Your task to perform on an android device: all mails in gmail Image 0: 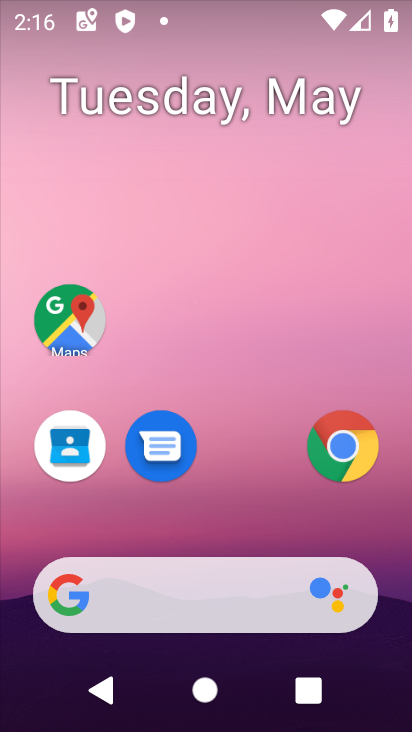
Step 0: drag from (222, 533) to (222, 4)
Your task to perform on an android device: all mails in gmail Image 1: 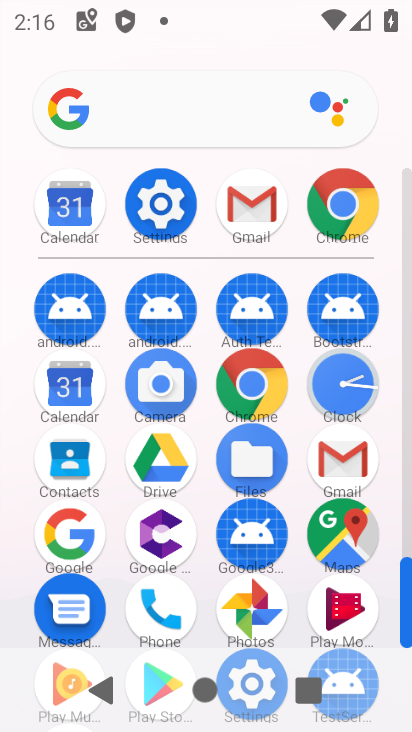
Step 1: click (342, 449)
Your task to perform on an android device: all mails in gmail Image 2: 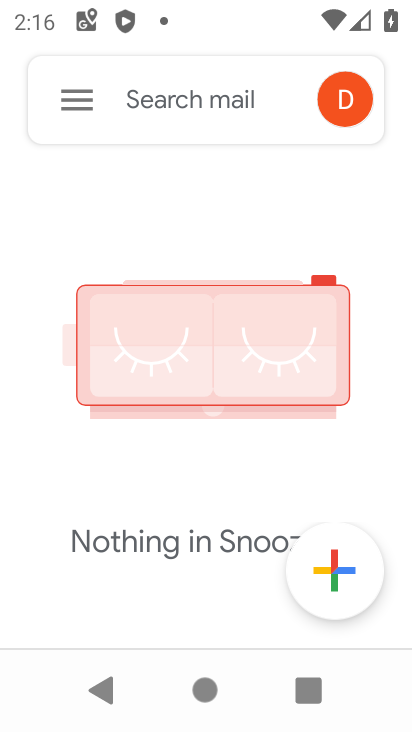
Step 2: click (54, 93)
Your task to perform on an android device: all mails in gmail Image 3: 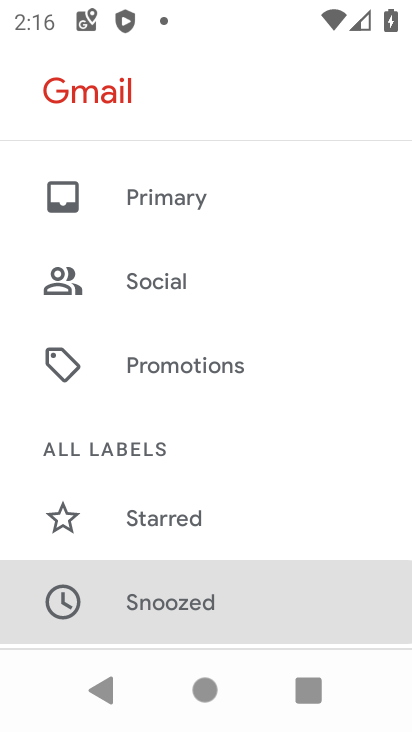
Step 3: drag from (154, 523) to (166, 91)
Your task to perform on an android device: all mails in gmail Image 4: 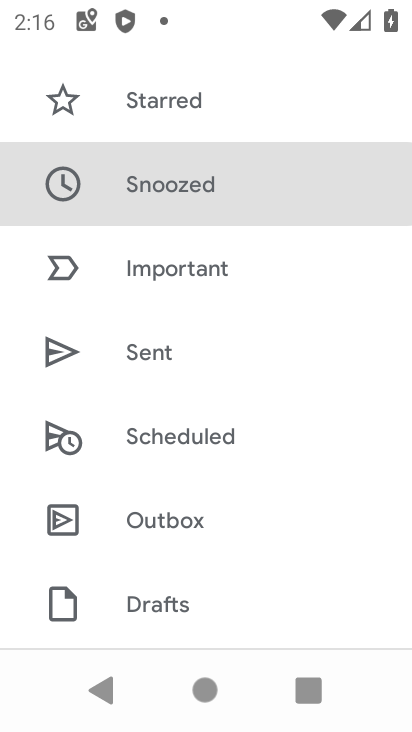
Step 4: drag from (184, 466) to (189, 61)
Your task to perform on an android device: all mails in gmail Image 5: 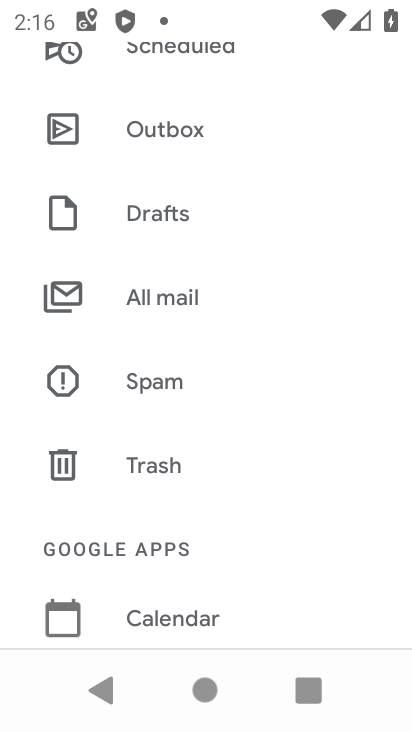
Step 5: click (153, 293)
Your task to perform on an android device: all mails in gmail Image 6: 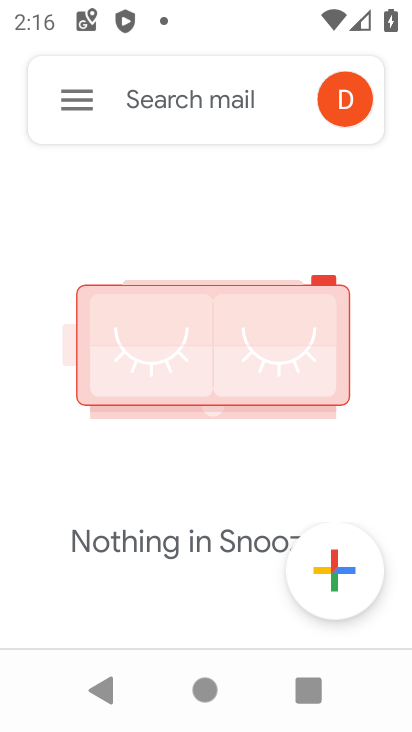
Step 6: task complete